Your task to perform on an android device: Go to eBay Image 0: 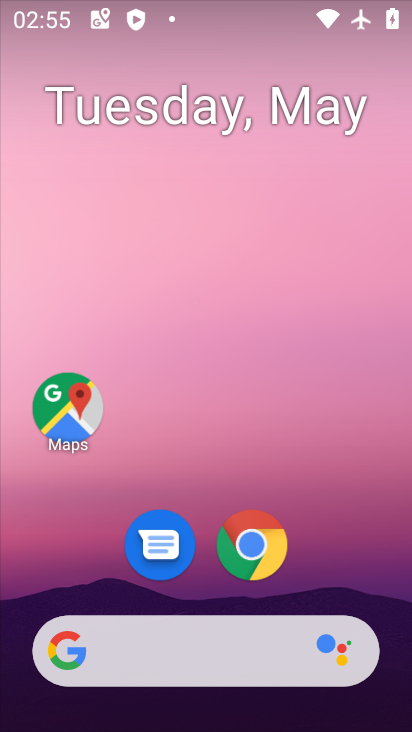
Step 0: click (252, 547)
Your task to perform on an android device: Go to eBay Image 1: 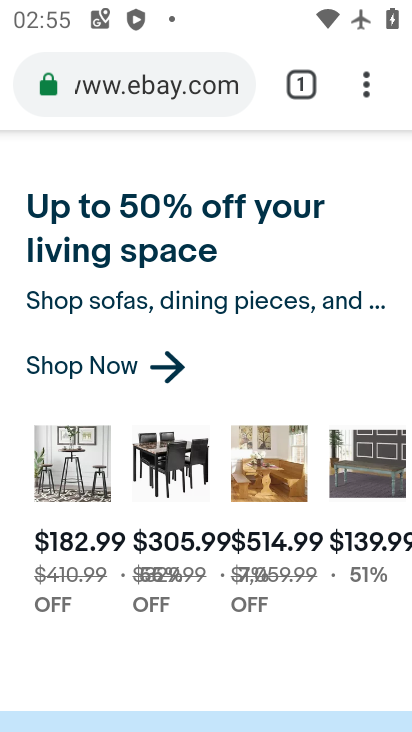
Step 1: task complete